Your task to perform on an android device: change text size in settings app Image 0: 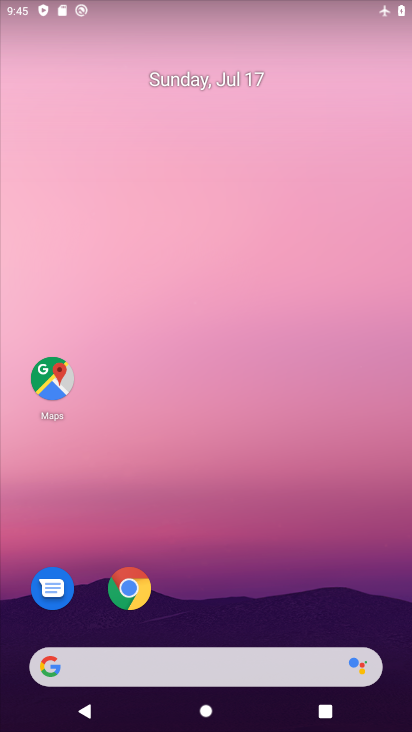
Step 0: drag from (325, 629) to (268, 170)
Your task to perform on an android device: change text size in settings app Image 1: 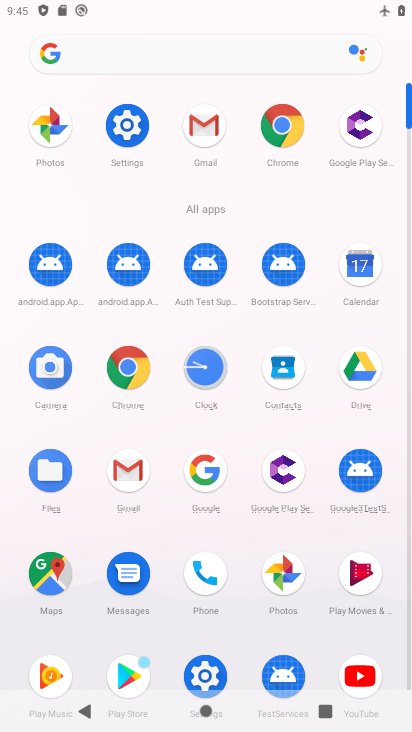
Step 1: click (139, 131)
Your task to perform on an android device: change text size in settings app Image 2: 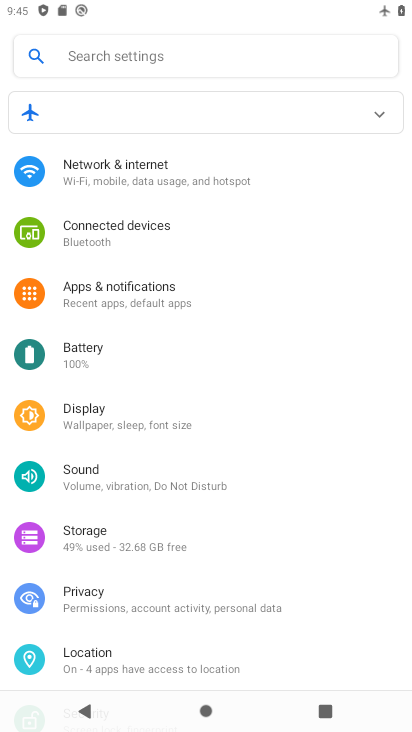
Step 2: click (169, 422)
Your task to perform on an android device: change text size in settings app Image 3: 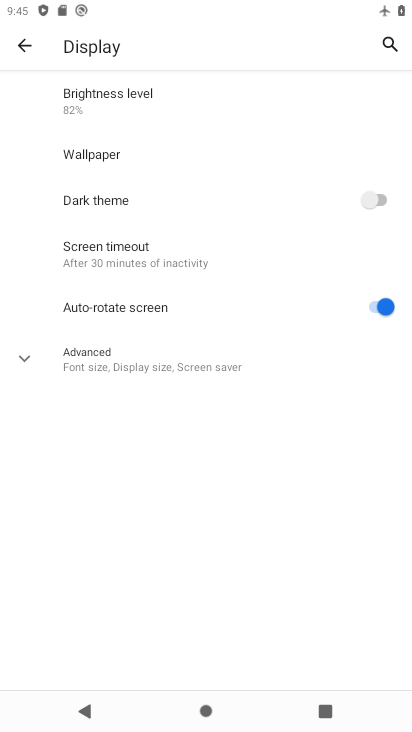
Step 3: click (164, 378)
Your task to perform on an android device: change text size in settings app Image 4: 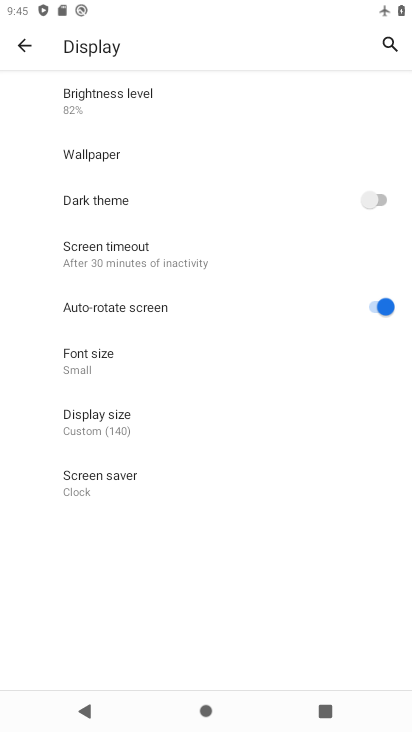
Step 4: click (159, 375)
Your task to perform on an android device: change text size in settings app Image 5: 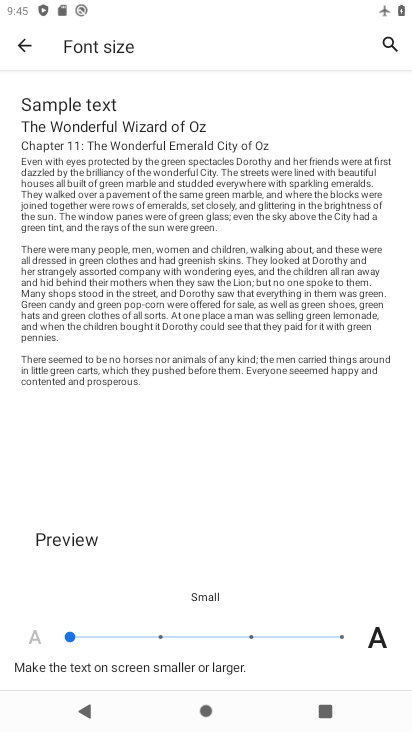
Step 5: click (239, 638)
Your task to perform on an android device: change text size in settings app Image 6: 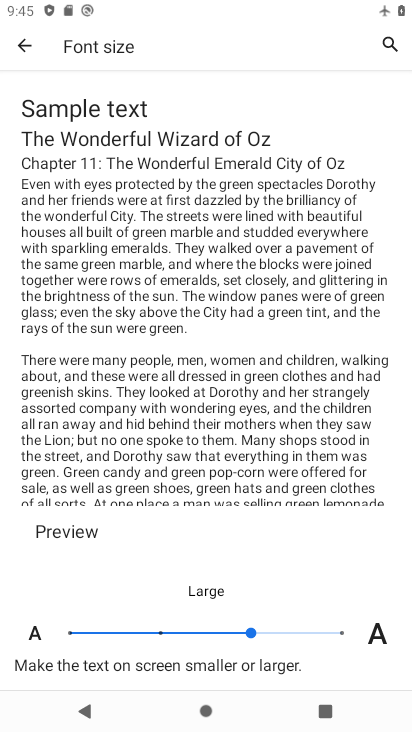
Step 6: task complete